Your task to perform on an android device: toggle priority inbox in the gmail app Image 0: 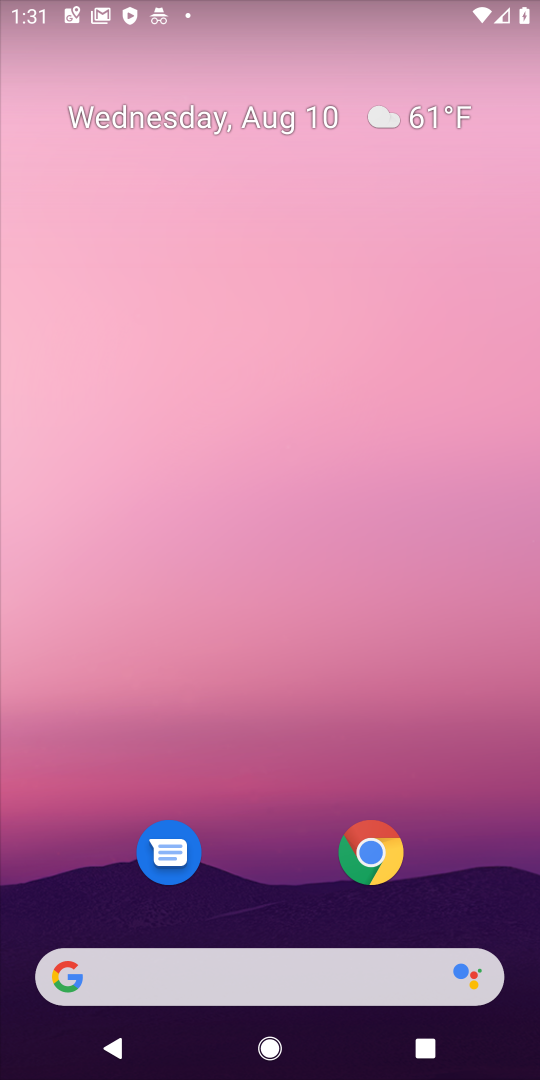
Step 0: drag from (278, 856) to (319, 216)
Your task to perform on an android device: toggle priority inbox in the gmail app Image 1: 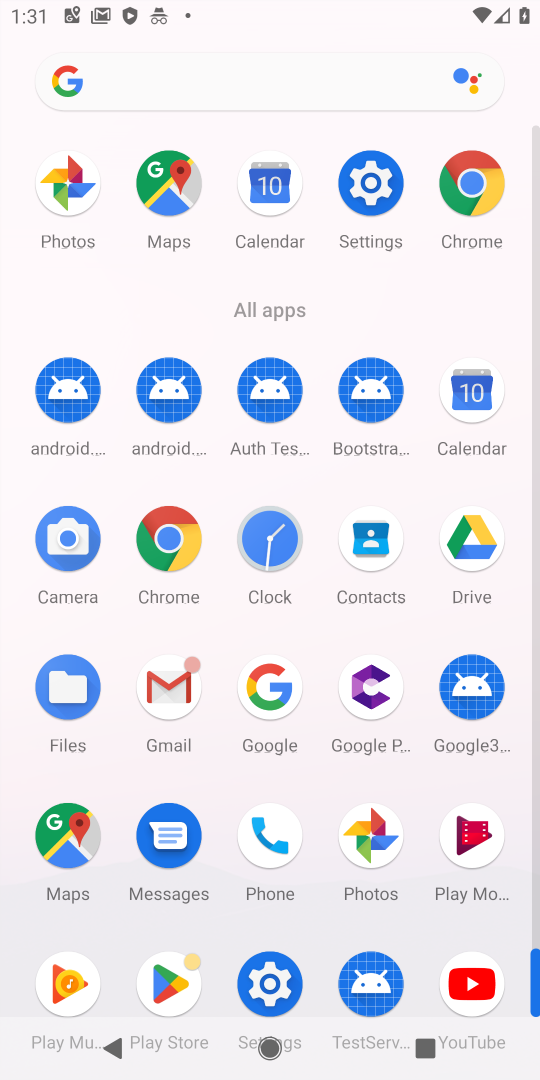
Step 1: click (179, 692)
Your task to perform on an android device: toggle priority inbox in the gmail app Image 2: 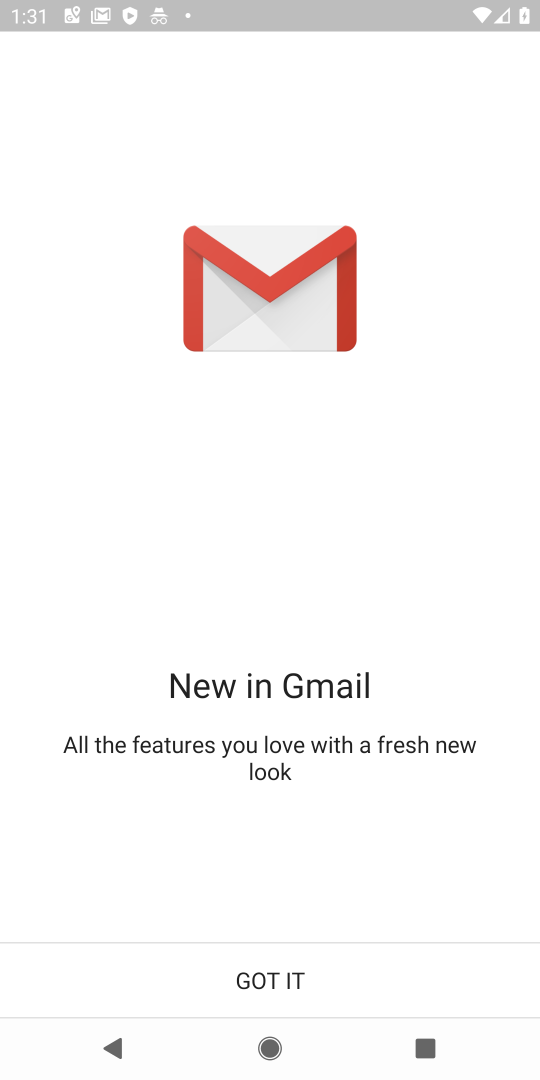
Step 2: click (278, 977)
Your task to perform on an android device: toggle priority inbox in the gmail app Image 3: 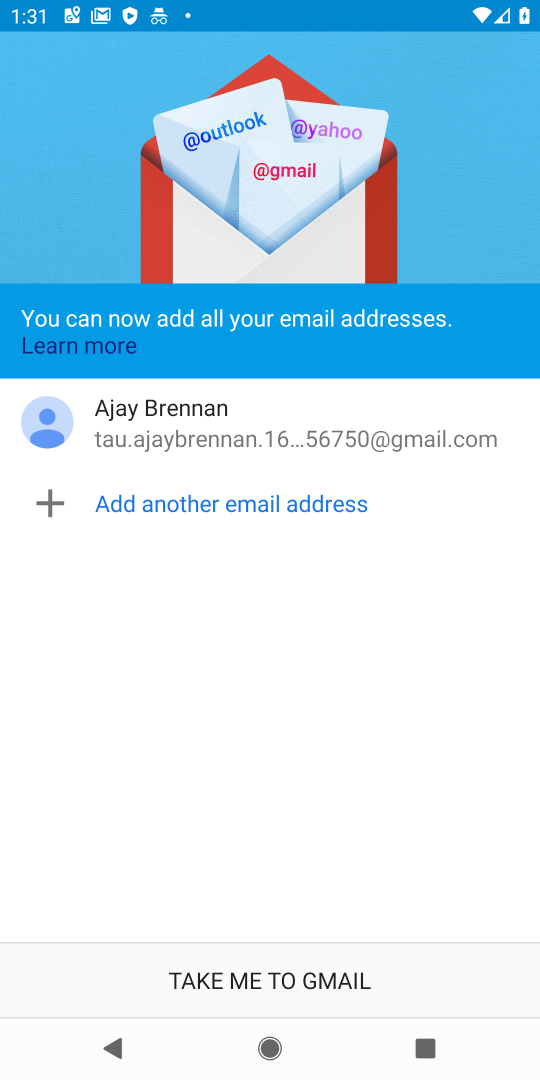
Step 3: click (299, 986)
Your task to perform on an android device: toggle priority inbox in the gmail app Image 4: 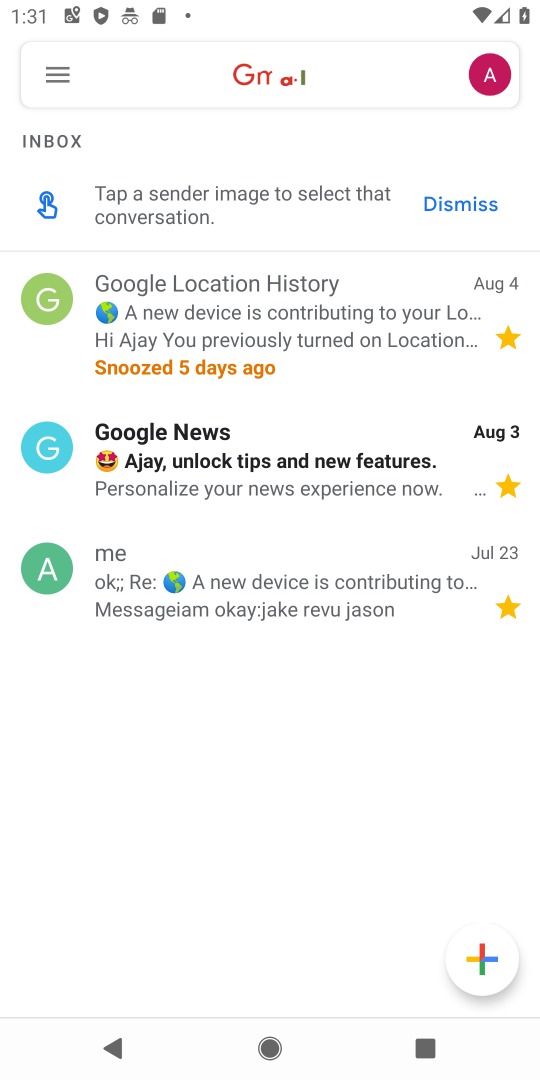
Step 4: click (42, 71)
Your task to perform on an android device: toggle priority inbox in the gmail app Image 5: 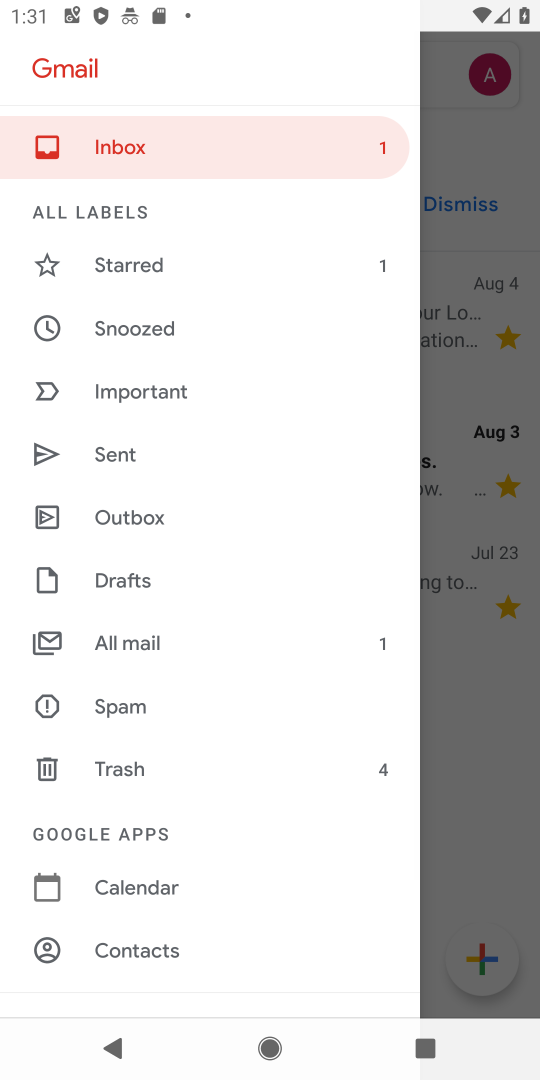
Step 5: drag from (175, 857) to (281, 286)
Your task to perform on an android device: toggle priority inbox in the gmail app Image 6: 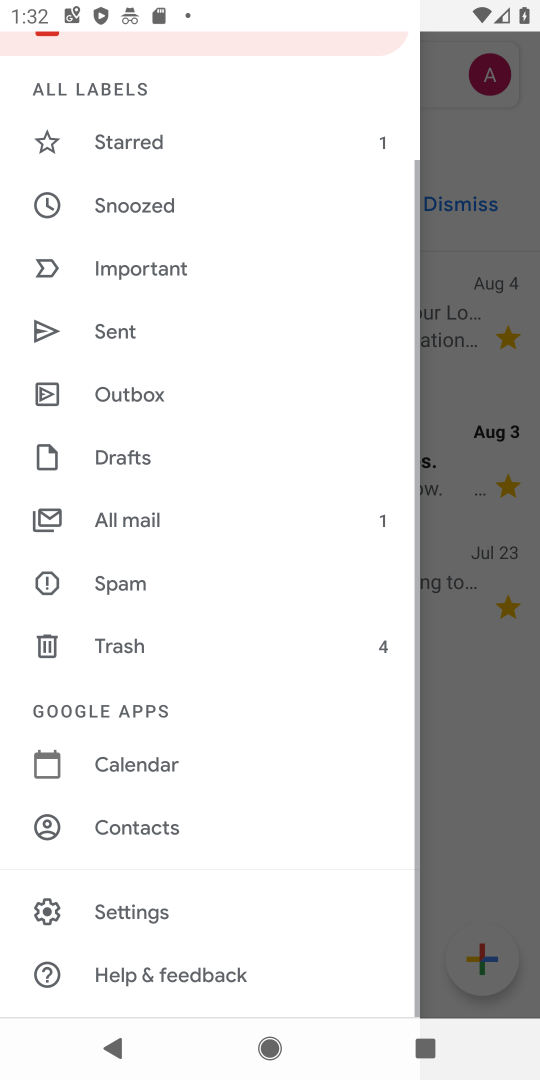
Step 6: click (136, 905)
Your task to perform on an android device: toggle priority inbox in the gmail app Image 7: 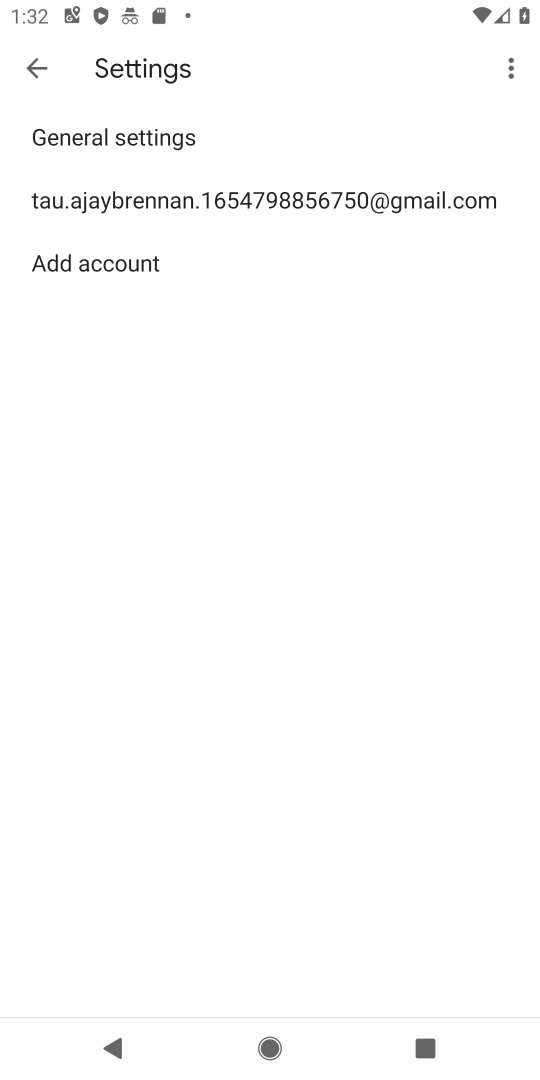
Step 7: click (325, 199)
Your task to perform on an android device: toggle priority inbox in the gmail app Image 8: 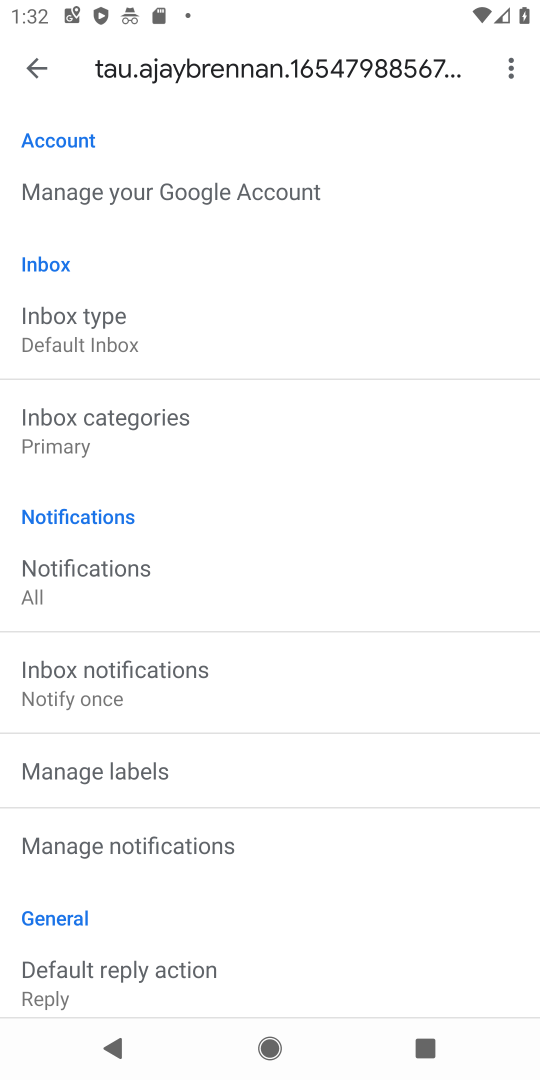
Step 8: click (60, 327)
Your task to perform on an android device: toggle priority inbox in the gmail app Image 9: 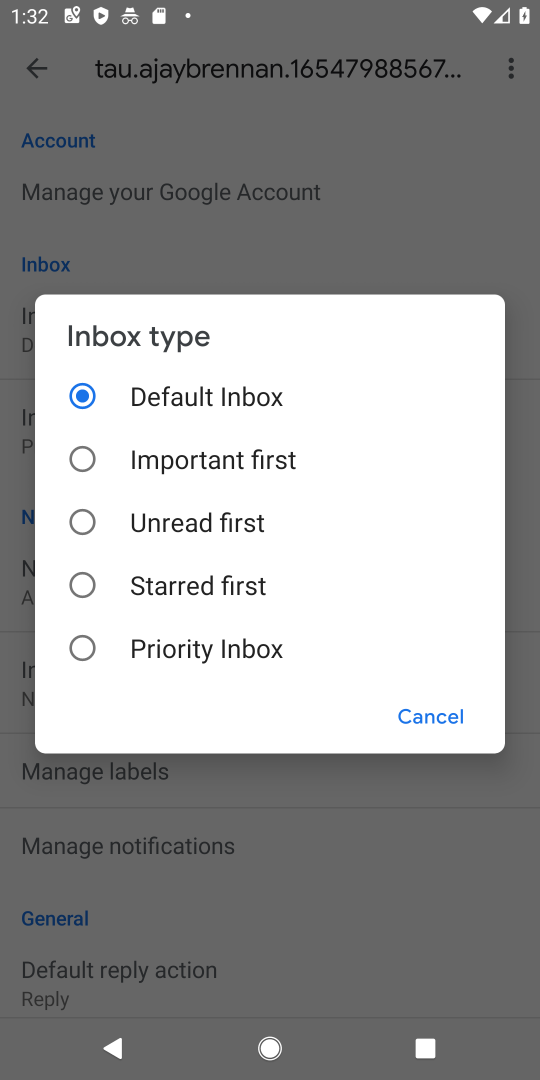
Step 9: click (193, 656)
Your task to perform on an android device: toggle priority inbox in the gmail app Image 10: 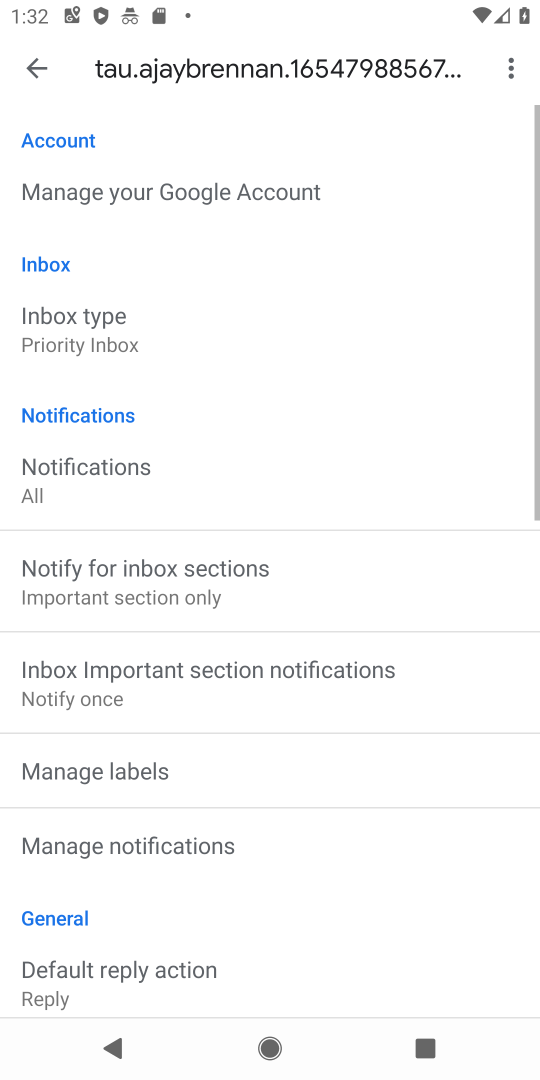
Step 10: task complete